Your task to perform on an android device: Go to location settings Image 0: 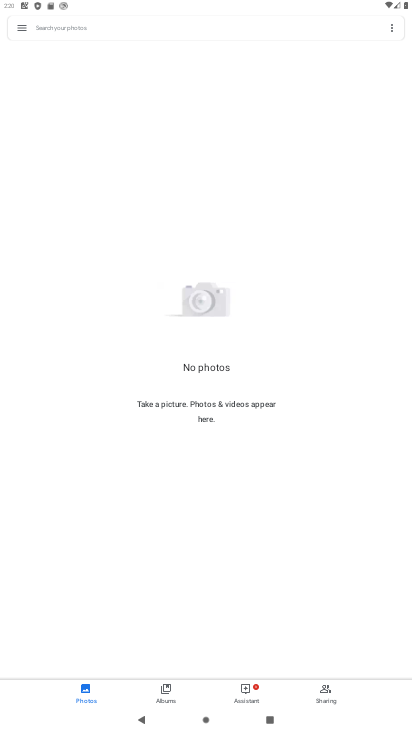
Step 0: press home button
Your task to perform on an android device: Go to location settings Image 1: 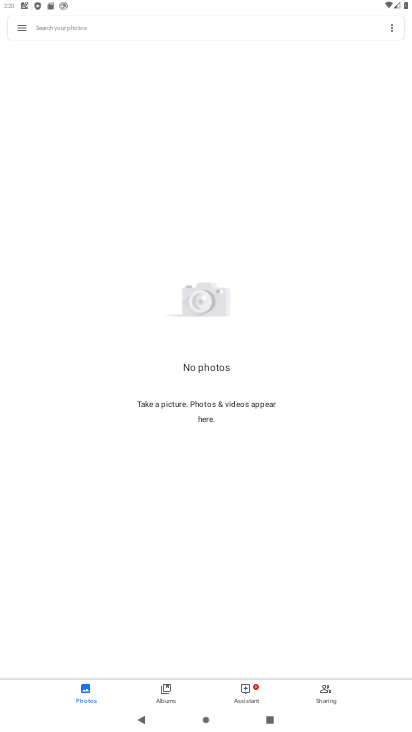
Step 1: press home button
Your task to perform on an android device: Go to location settings Image 2: 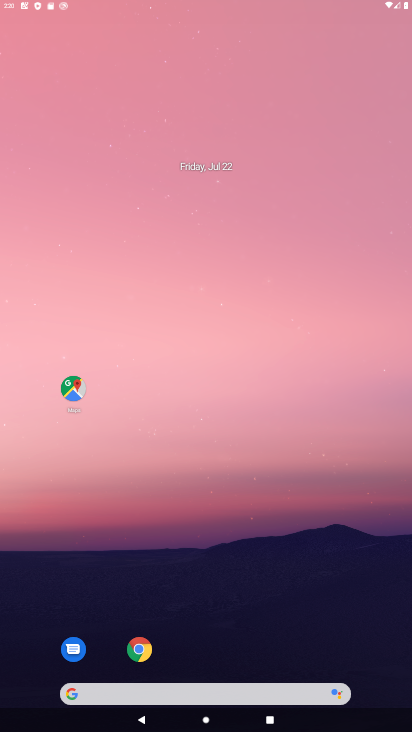
Step 2: press home button
Your task to perform on an android device: Go to location settings Image 3: 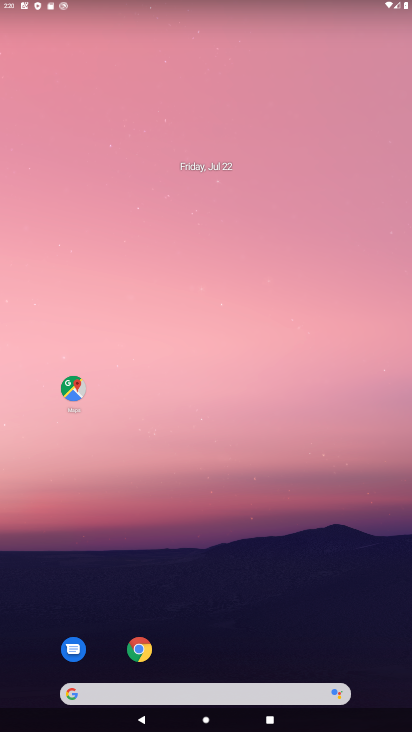
Step 3: drag from (202, 618) to (249, 166)
Your task to perform on an android device: Go to location settings Image 4: 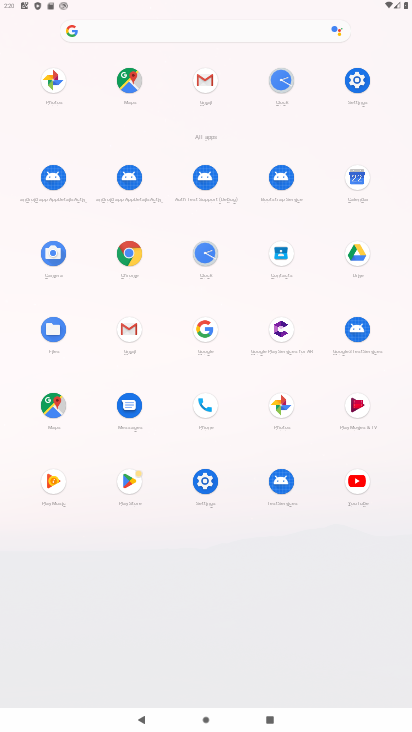
Step 4: click (201, 486)
Your task to perform on an android device: Go to location settings Image 5: 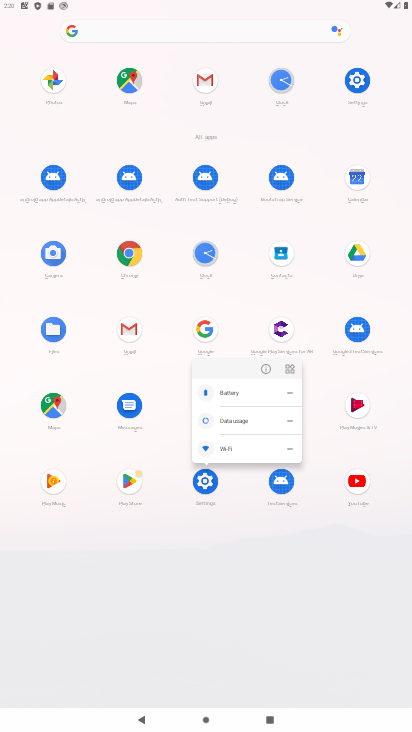
Step 5: click (267, 372)
Your task to perform on an android device: Go to location settings Image 6: 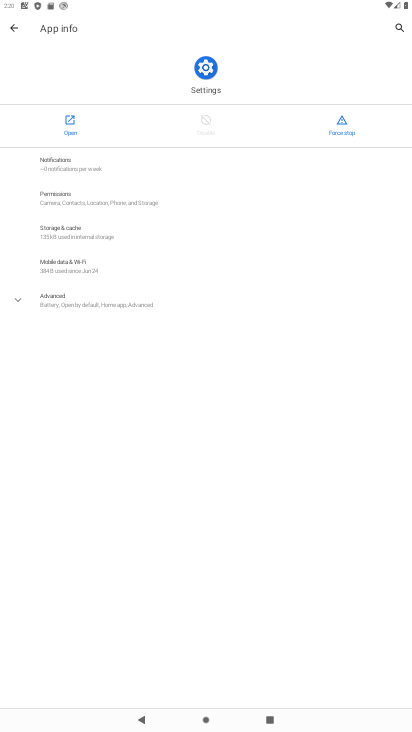
Step 6: click (71, 116)
Your task to perform on an android device: Go to location settings Image 7: 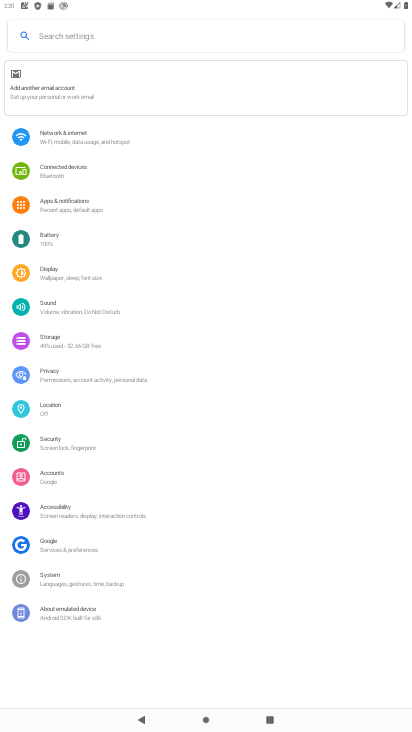
Step 7: click (57, 404)
Your task to perform on an android device: Go to location settings Image 8: 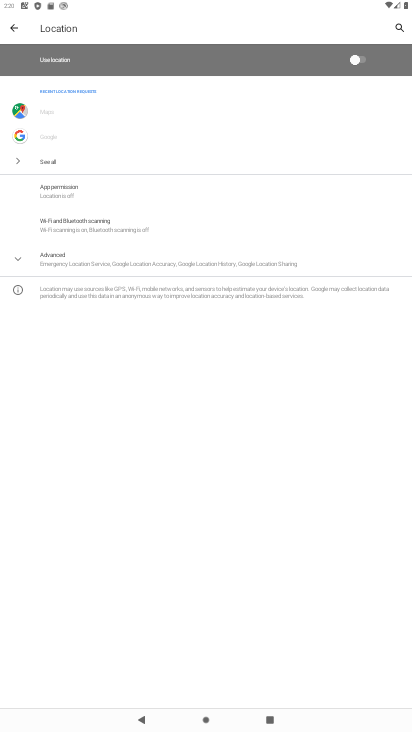
Step 8: task complete